Your task to perform on an android device: Go to calendar. Show me events next week Image 0: 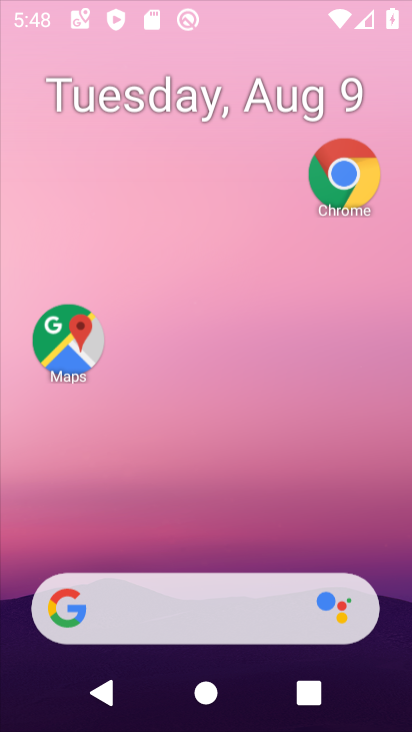
Step 0: click (323, 59)
Your task to perform on an android device: Go to calendar. Show me events next week Image 1: 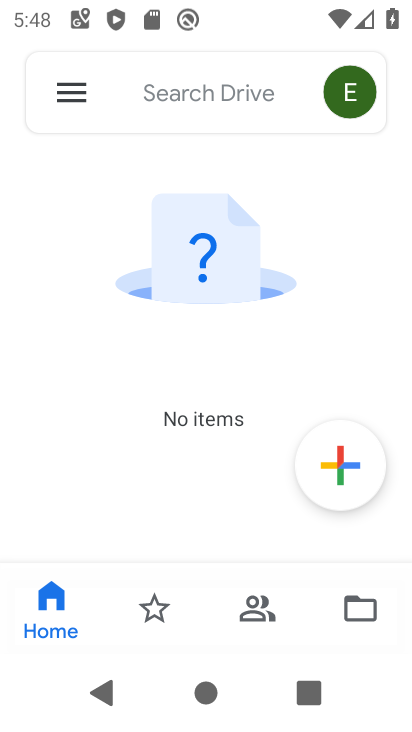
Step 1: drag from (240, 485) to (224, 246)
Your task to perform on an android device: Go to calendar. Show me events next week Image 2: 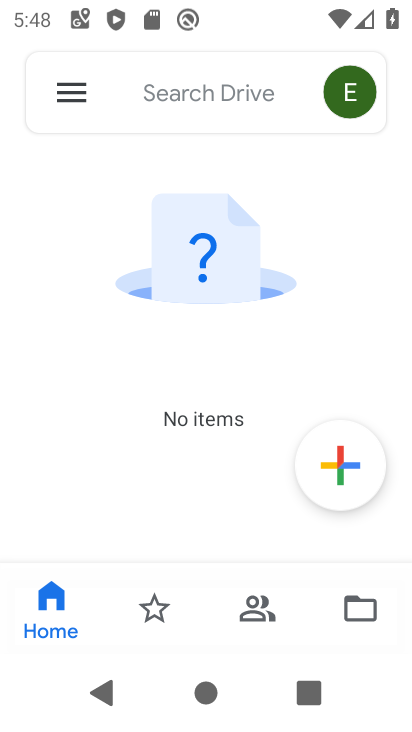
Step 2: press home button
Your task to perform on an android device: Go to calendar. Show me events next week Image 3: 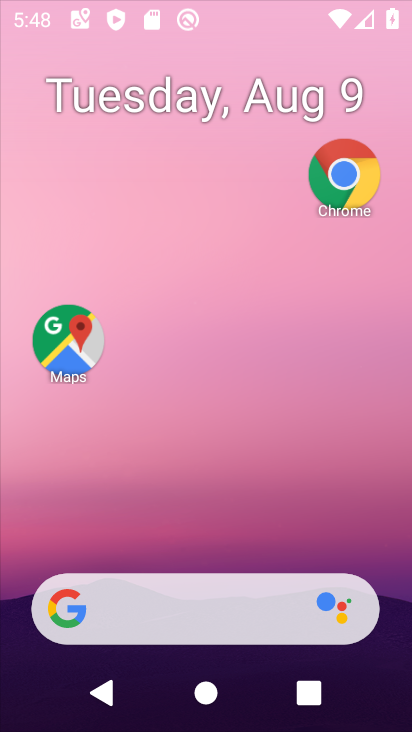
Step 3: drag from (190, 478) to (190, 212)
Your task to perform on an android device: Go to calendar. Show me events next week Image 4: 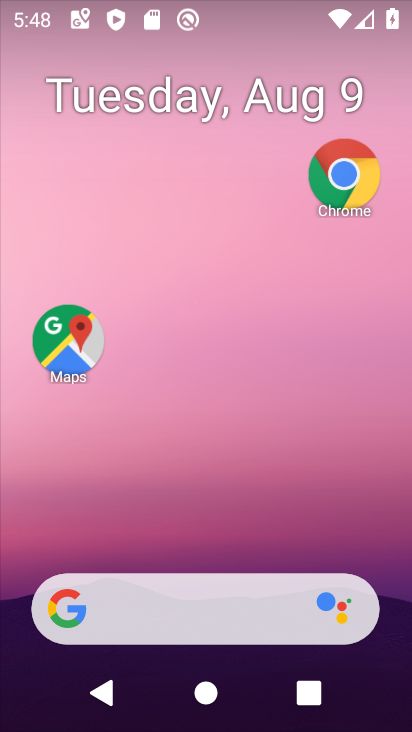
Step 4: drag from (175, 544) to (187, 264)
Your task to perform on an android device: Go to calendar. Show me events next week Image 5: 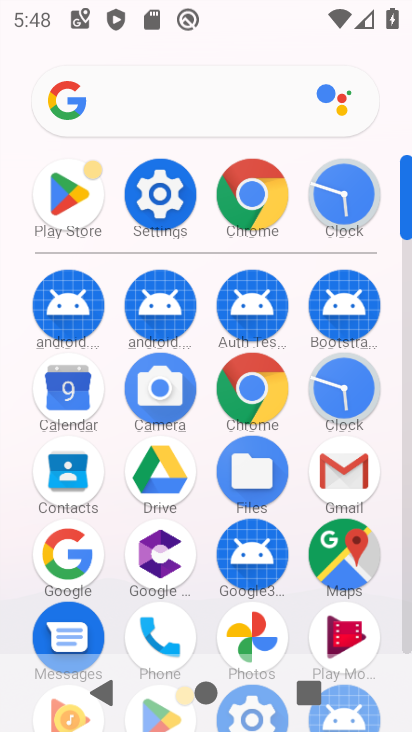
Step 5: drag from (197, 589) to (216, 292)
Your task to perform on an android device: Go to calendar. Show me events next week Image 6: 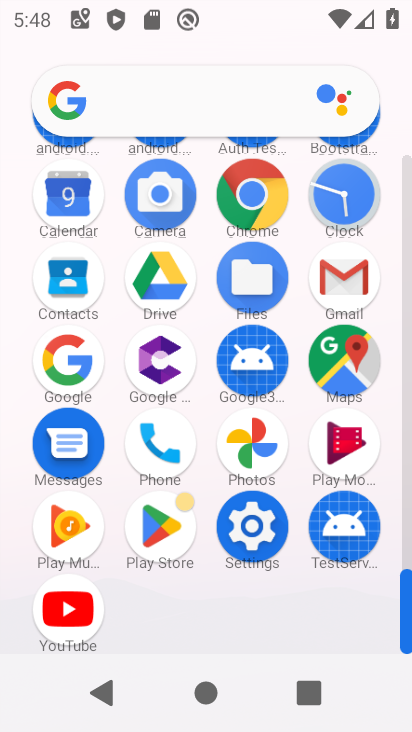
Step 6: drag from (212, 457) to (212, 335)
Your task to perform on an android device: Go to calendar. Show me events next week Image 7: 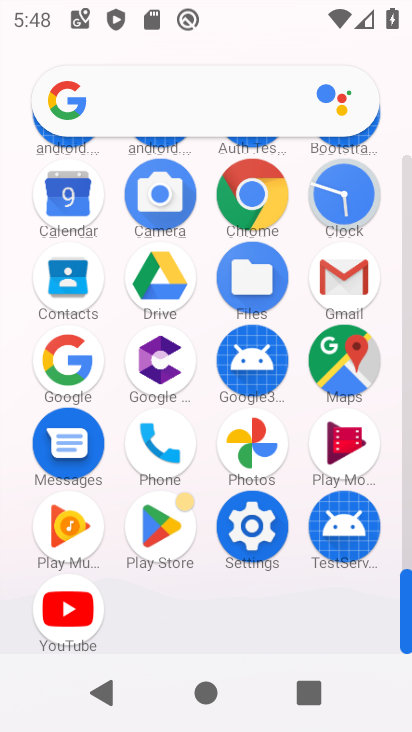
Step 7: drag from (207, 569) to (205, 157)
Your task to perform on an android device: Go to calendar. Show me events next week Image 8: 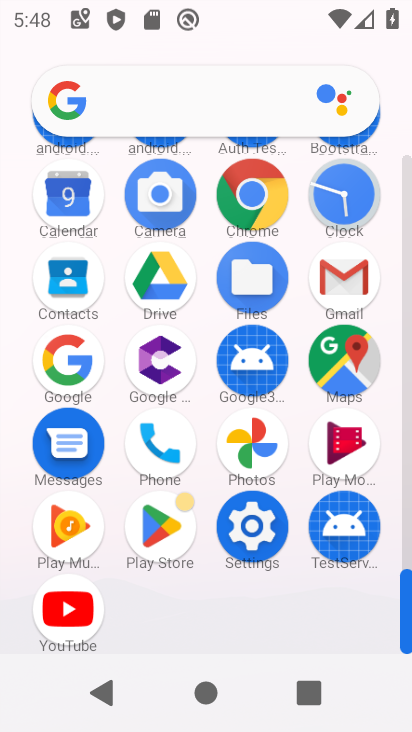
Step 8: drag from (207, 579) to (198, 319)
Your task to perform on an android device: Go to calendar. Show me events next week Image 9: 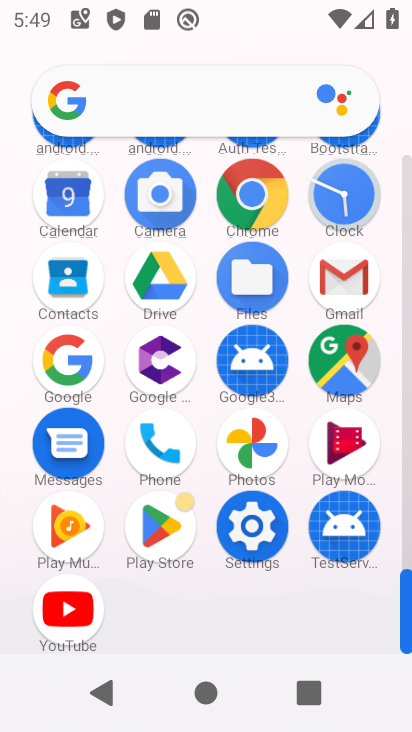
Step 9: click (52, 205)
Your task to perform on an android device: Go to calendar. Show me events next week Image 10: 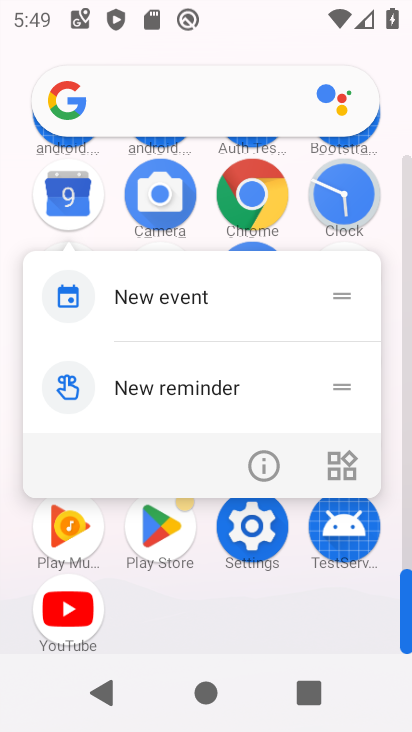
Step 10: click (262, 476)
Your task to perform on an android device: Go to calendar. Show me events next week Image 11: 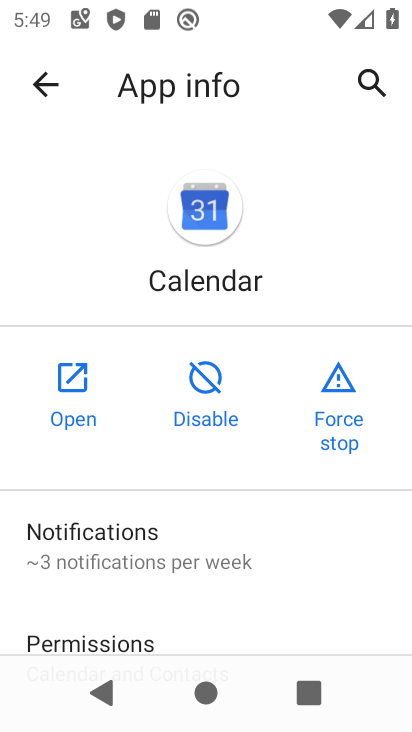
Step 11: click (51, 376)
Your task to perform on an android device: Go to calendar. Show me events next week Image 12: 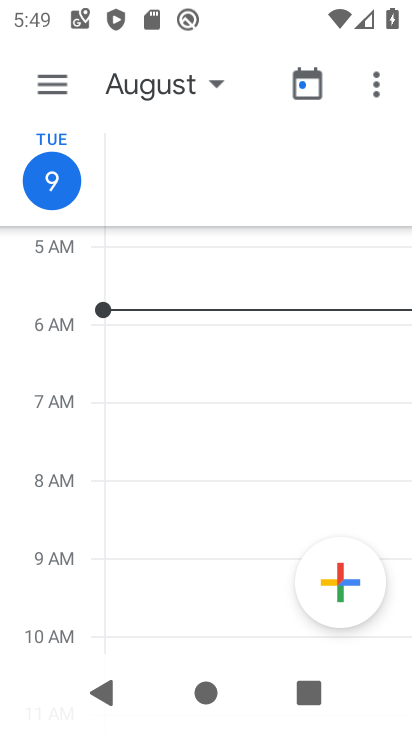
Step 12: click (163, 102)
Your task to perform on an android device: Go to calendar. Show me events next week Image 13: 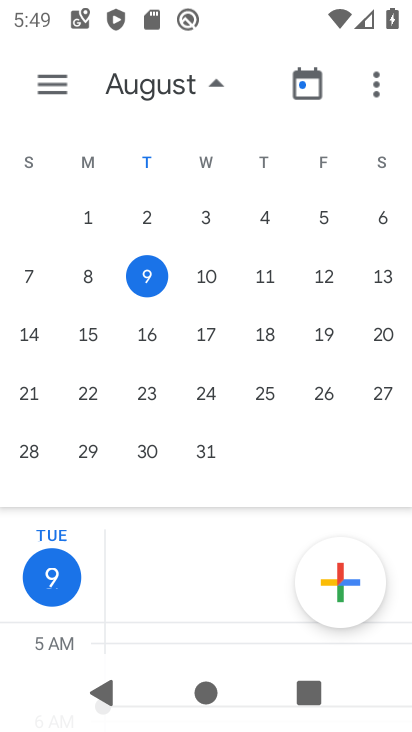
Step 13: click (303, 92)
Your task to perform on an android device: Go to calendar. Show me events next week Image 14: 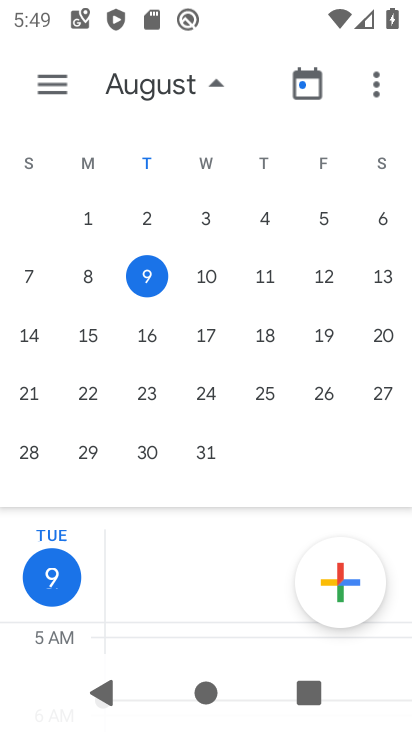
Step 14: click (282, 332)
Your task to perform on an android device: Go to calendar. Show me events next week Image 15: 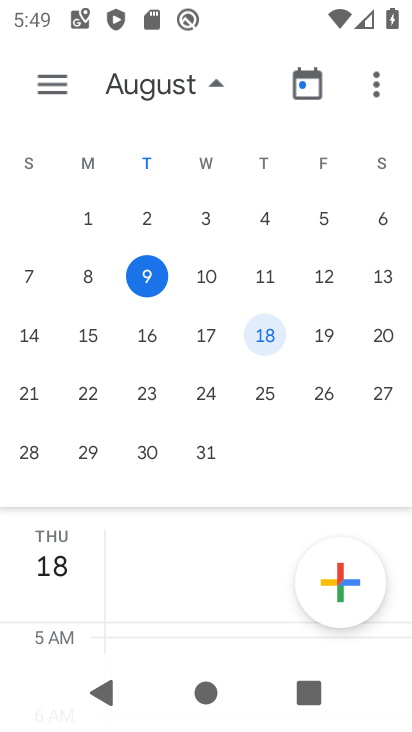
Step 15: task complete